Your task to perform on an android device: Search for vegetarian restaurants on Maps Image 0: 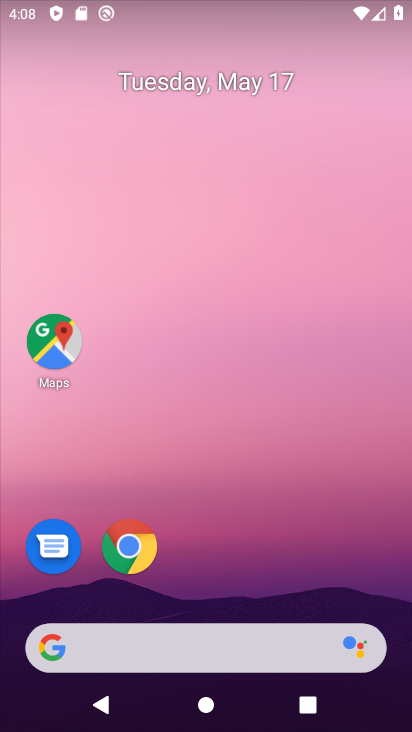
Step 0: click (45, 345)
Your task to perform on an android device: Search for vegetarian restaurants on Maps Image 1: 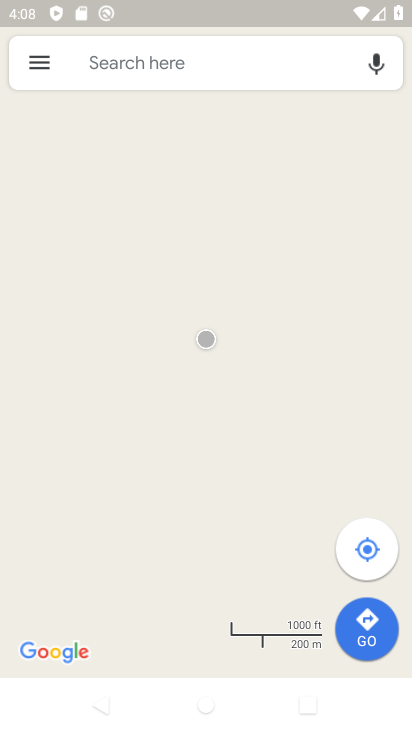
Step 1: click (207, 76)
Your task to perform on an android device: Search for vegetarian restaurants on Maps Image 2: 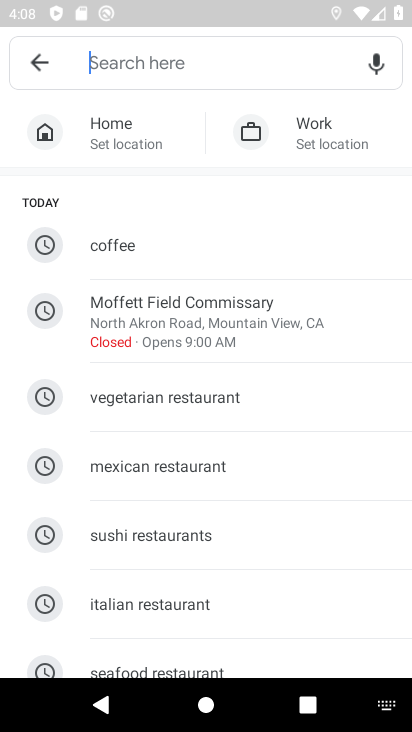
Step 2: click (224, 411)
Your task to perform on an android device: Search for vegetarian restaurants on Maps Image 3: 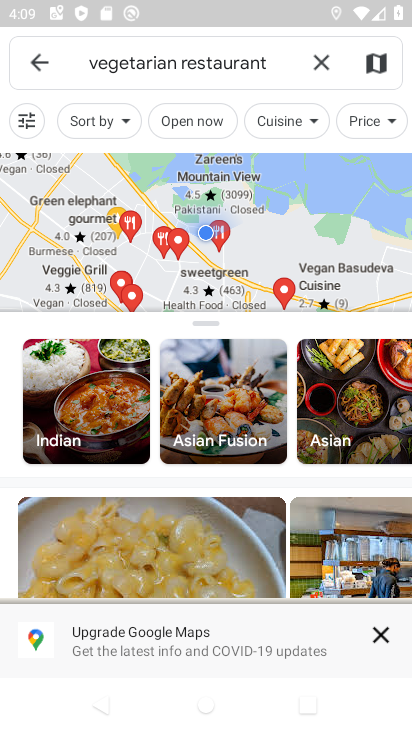
Step 3: task complete